Your task to perform on an android device: open app "Adobe Acrobat Reader: Edit PDF" Image 0: 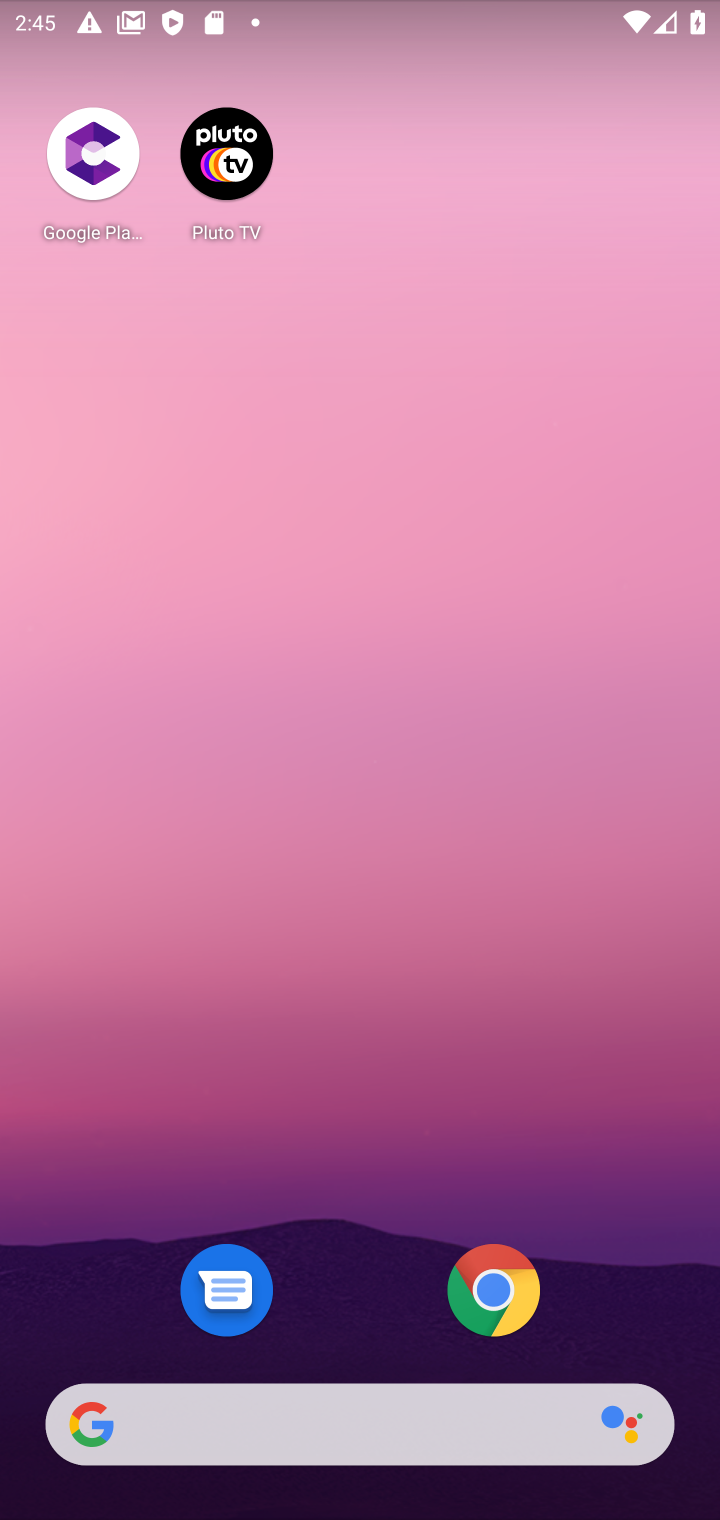
Step 0: click (492, 766)
Your task to perform on an android device: open app "Adobe Acrobat Reader: Edit PDF" Image 1: 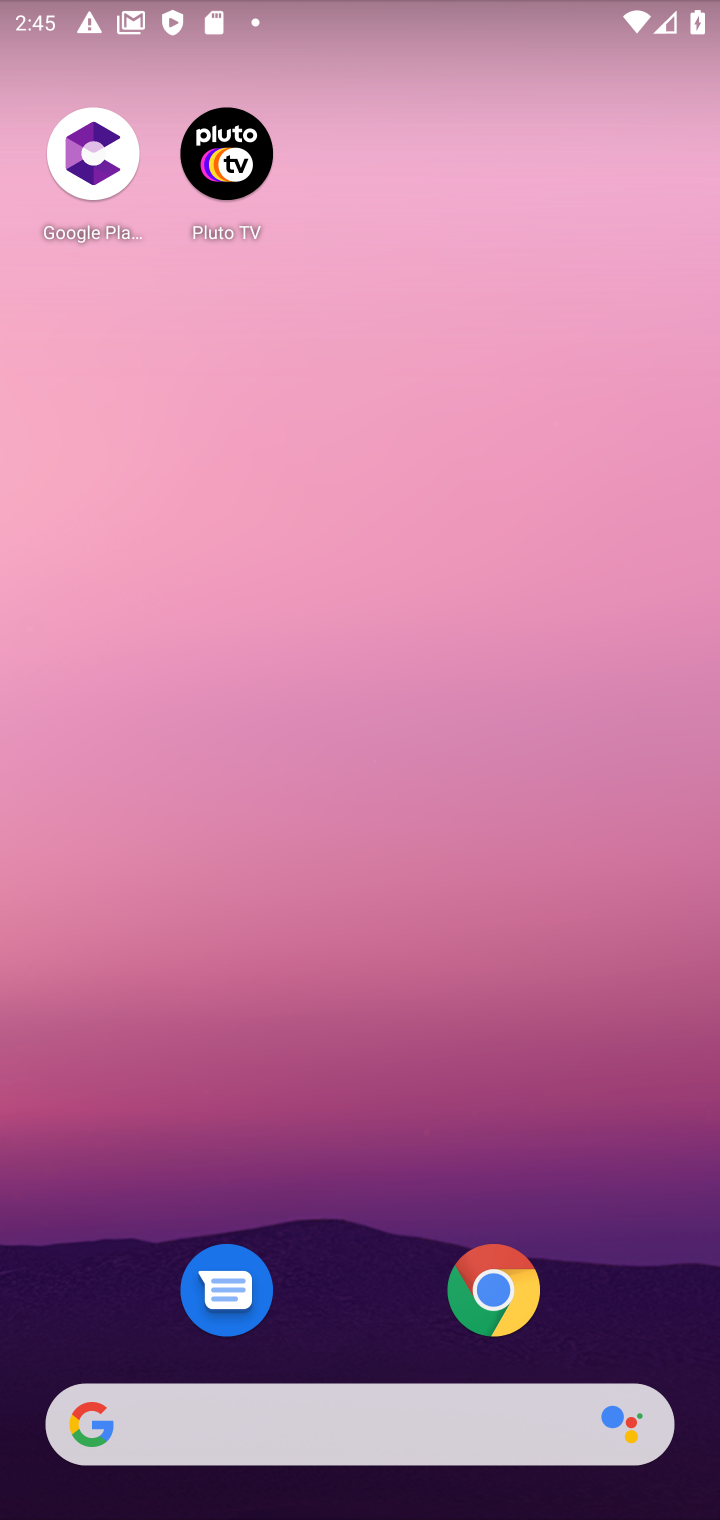
Step 1: drag from (494, 1358) to (443, 699)
Your task to perform on an android device: open app "Adobe Acrobat Reader: Edit PDF" Image 2: 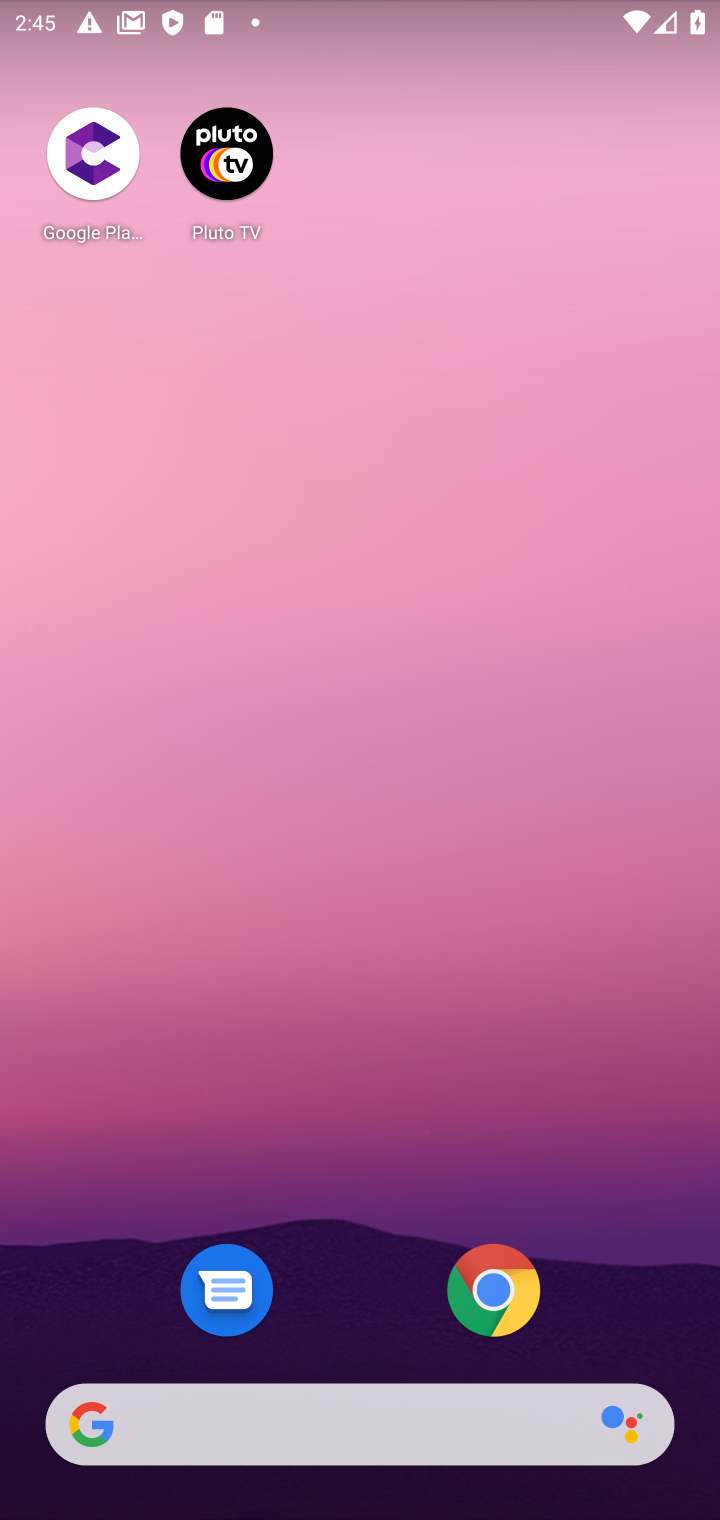
Step 2: drag from (419, 739) to (419, 658)
Your task to perform on an android device: open app "Adobe Acrobat Reader: Edit PDF" Image 3: 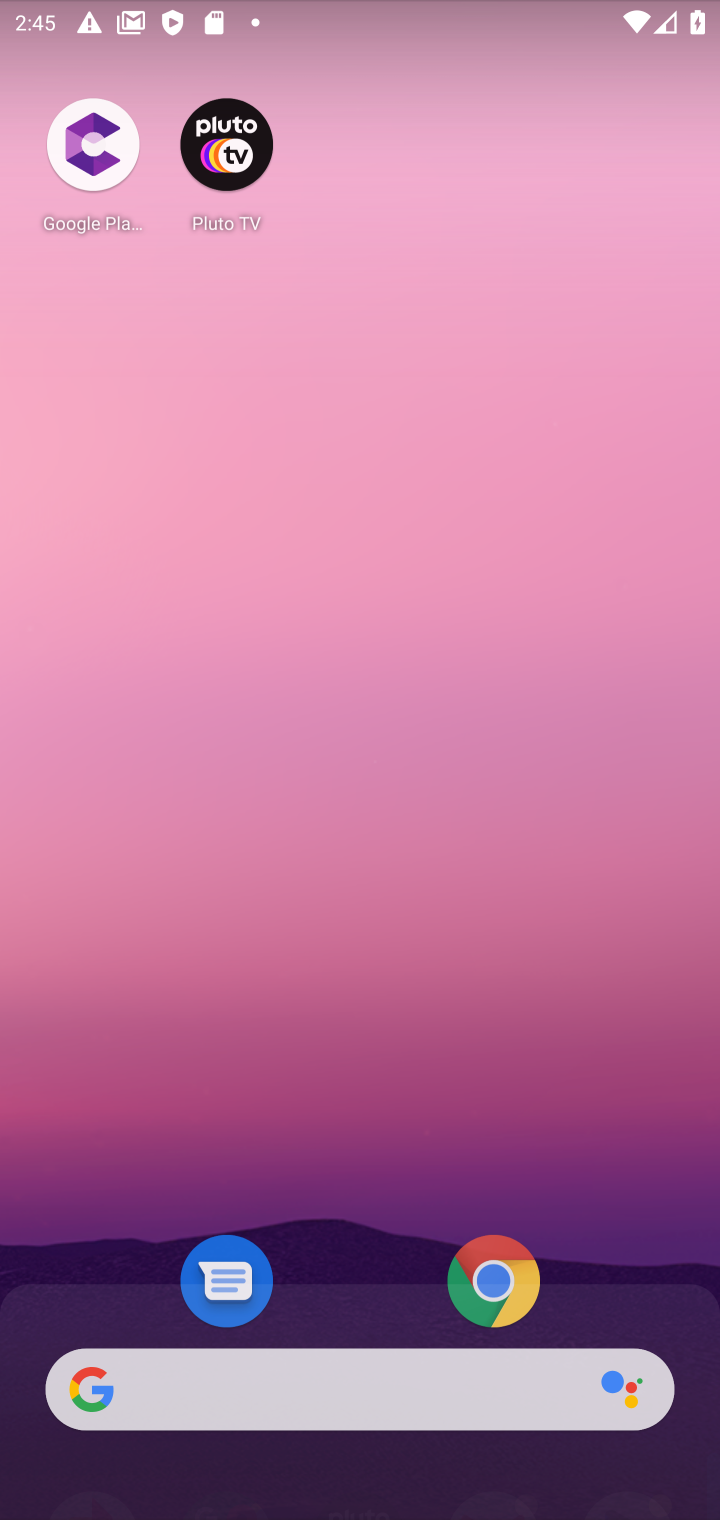
Step 3: drag from (344, 729) to (344, 645)
Your task to perform on an android device: open app "Adobe Acrobat Reader: Edit PDF" Image 4: 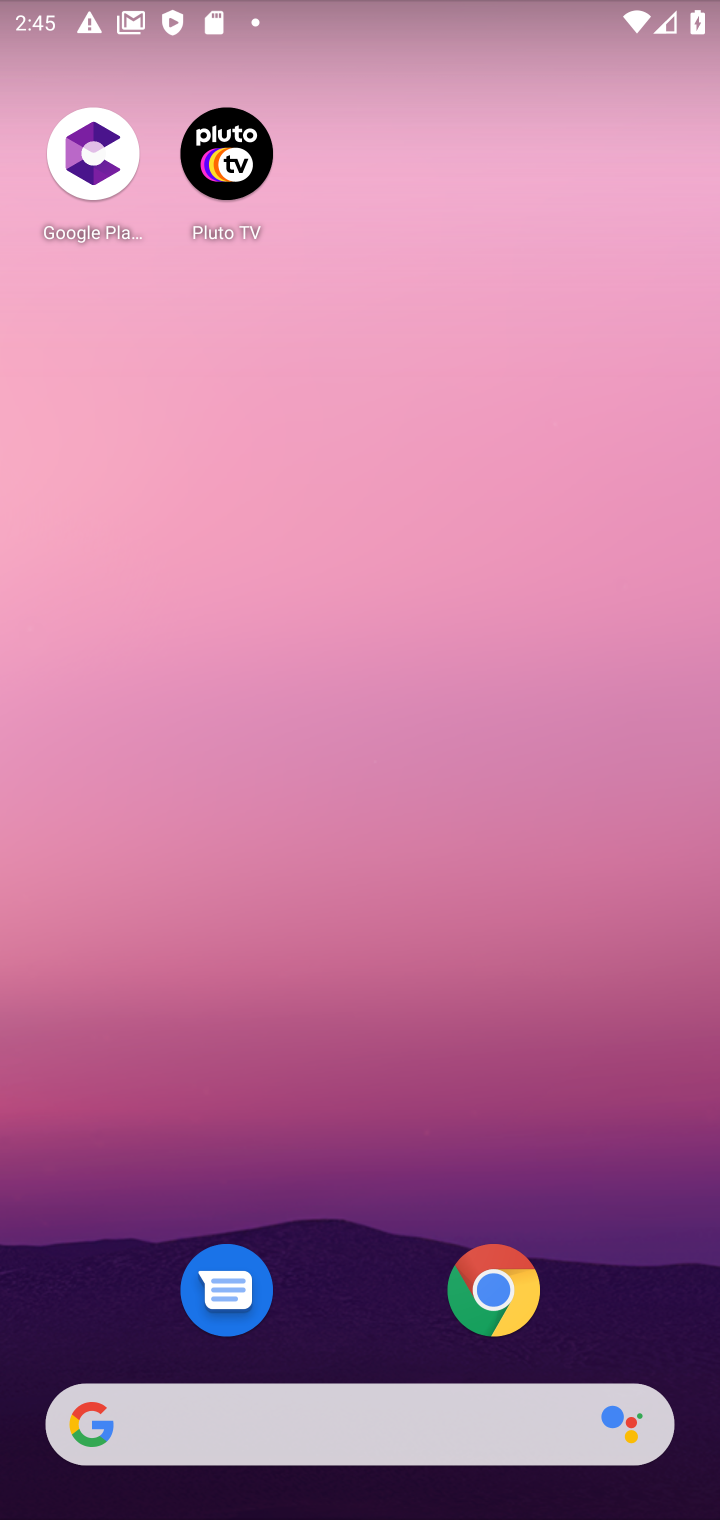
Step 4: drag from (596, 1111) to (541, 376)
Your task to perform on an android device: open app "Adobe Acrobat Reader: Edit PDF" Image 5: 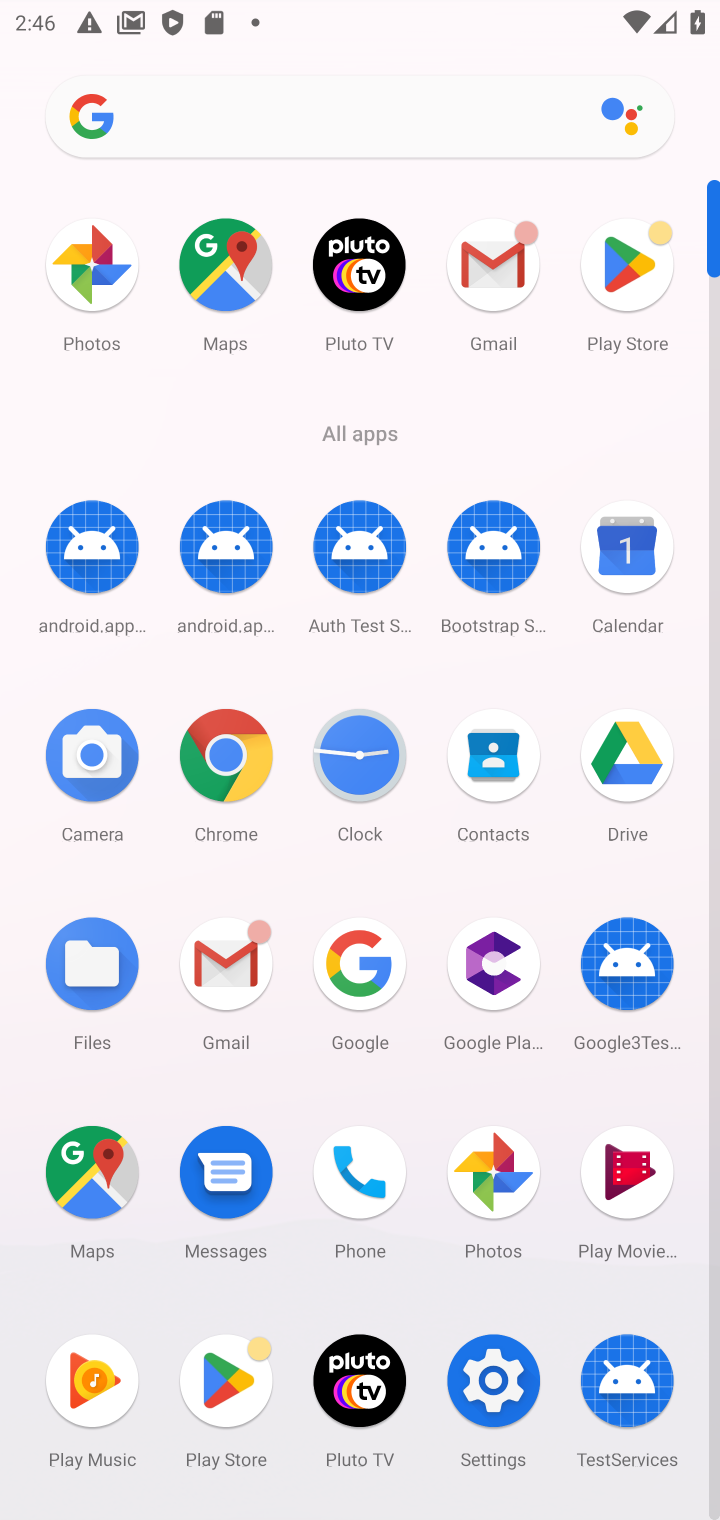
Step 5: click (248, 1398)
Your task to perform on an android device: open app "Adobe Acrobat Reader: Edit PDF" Image 6: 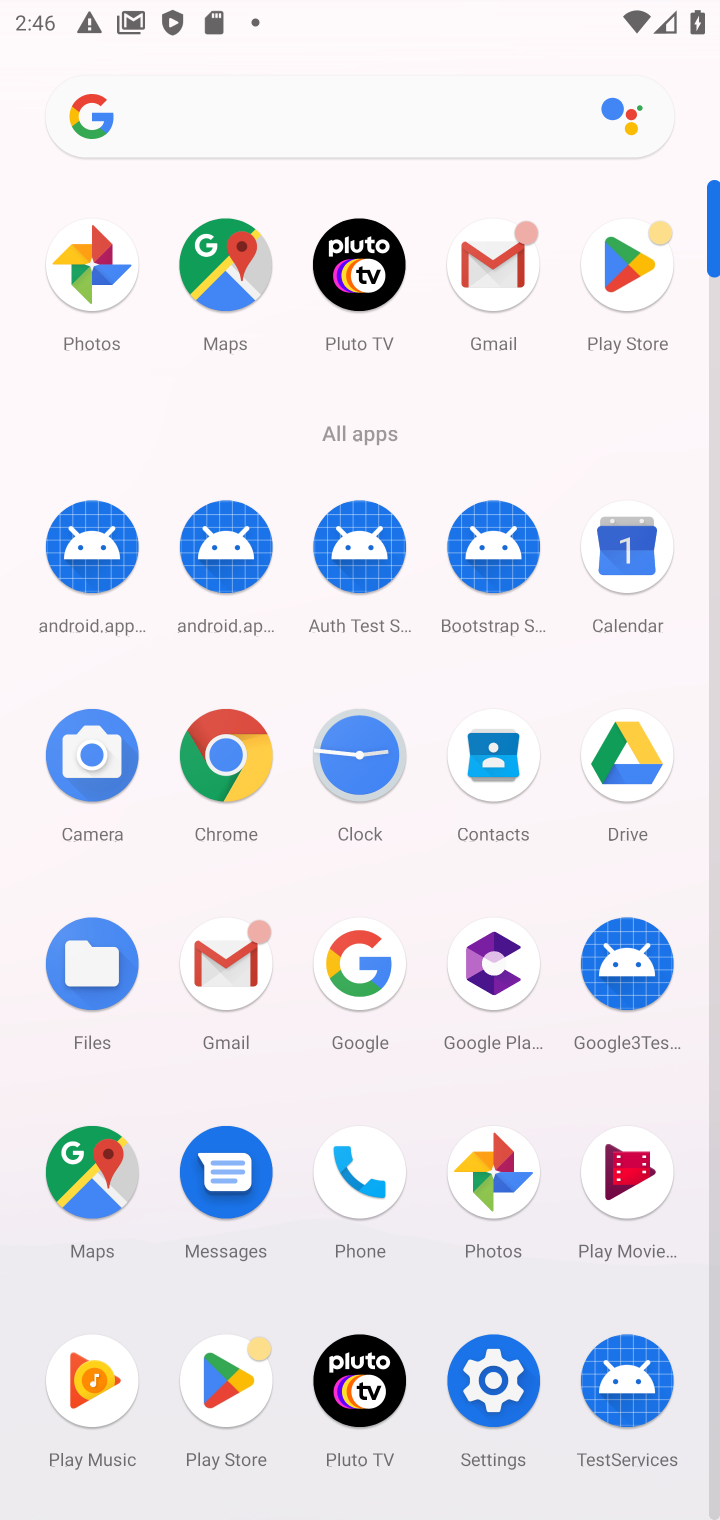
Step 6: click (244, 1396)
Your task to perform on an android device: open app "Adobe Acrobat Reader: Edit PDF" Image 7: 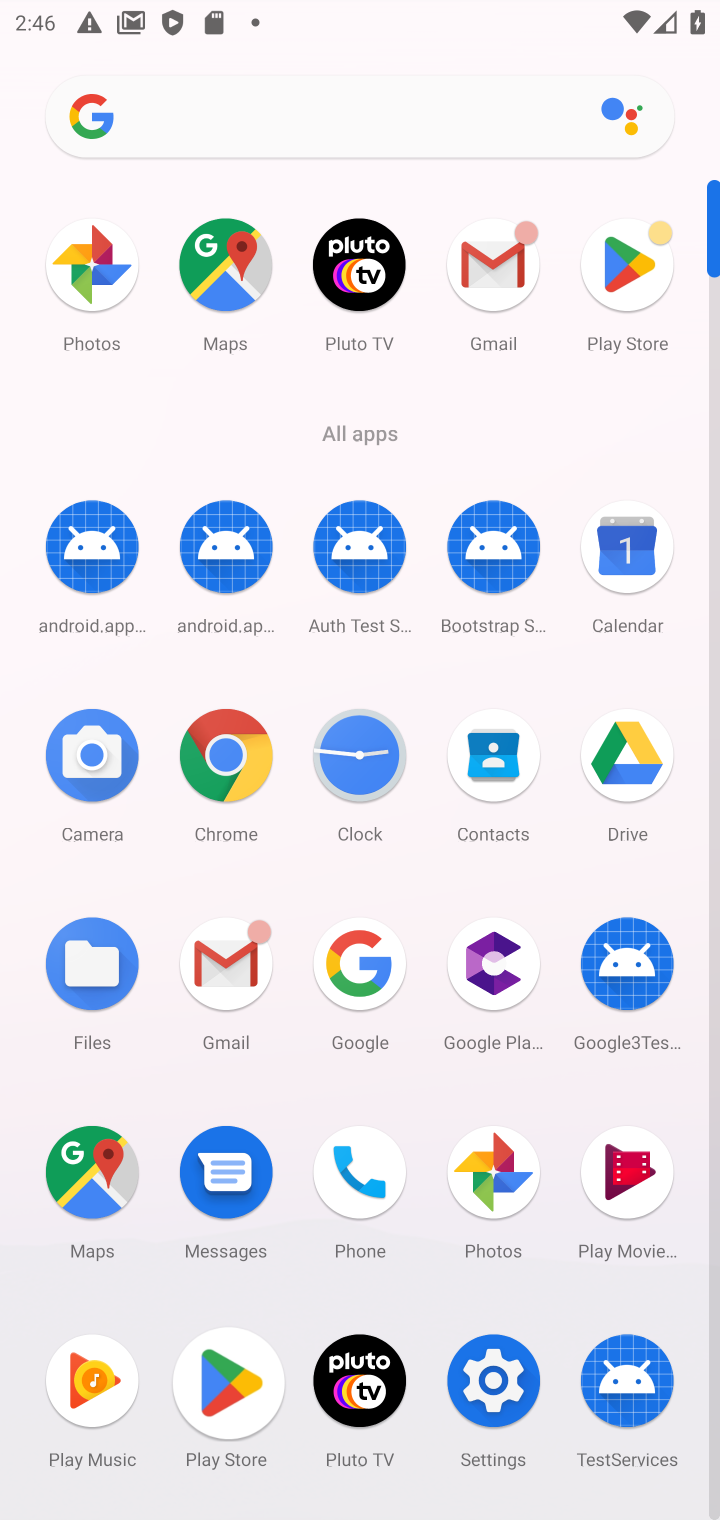
Step 7: click (250, 1398)
Your task to perform on an android device: open app "Adobe Acrobat Reader: Edit PDF" Image 8: 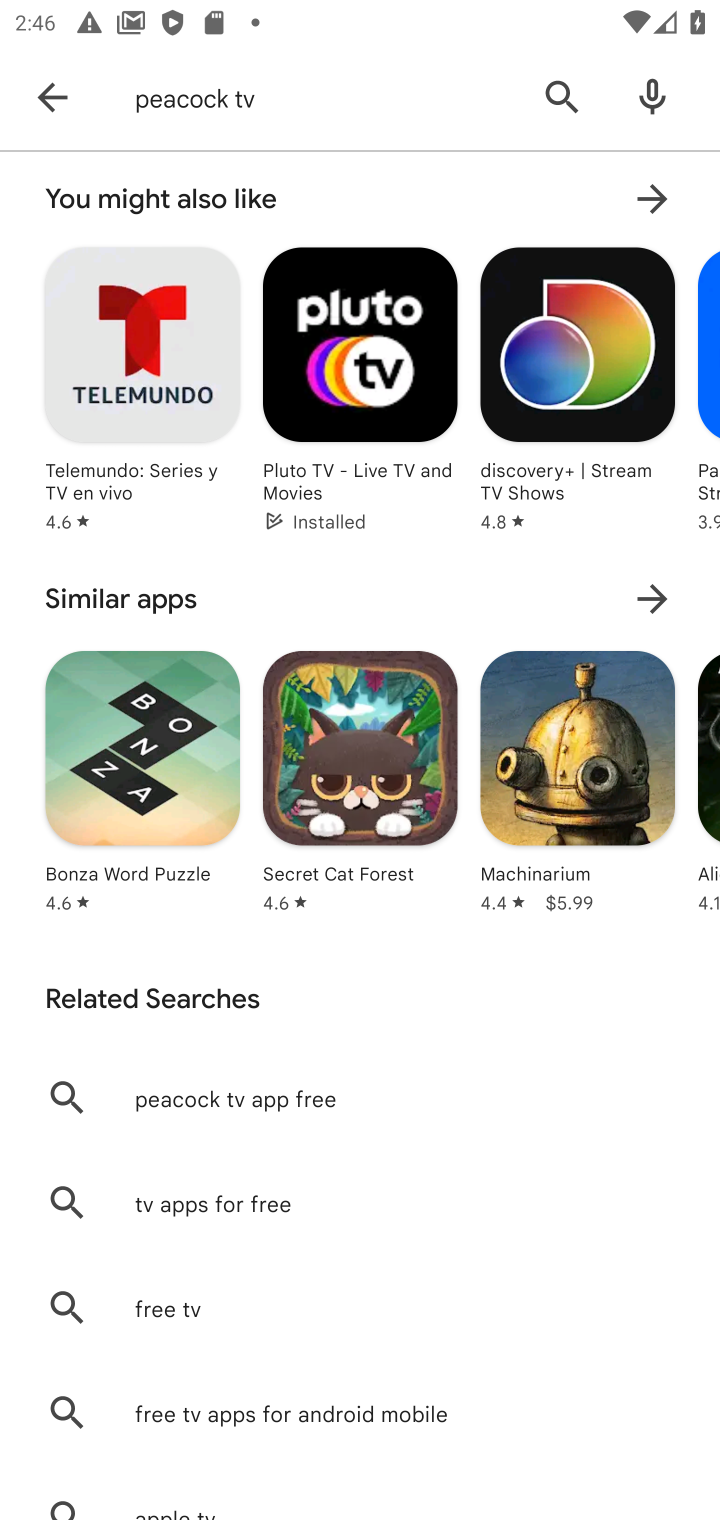
Step 8: click (266, 1409)
Your task to perform on an android device: open app "Adobe Acrobat Reader: Edit PDF" Image 9: 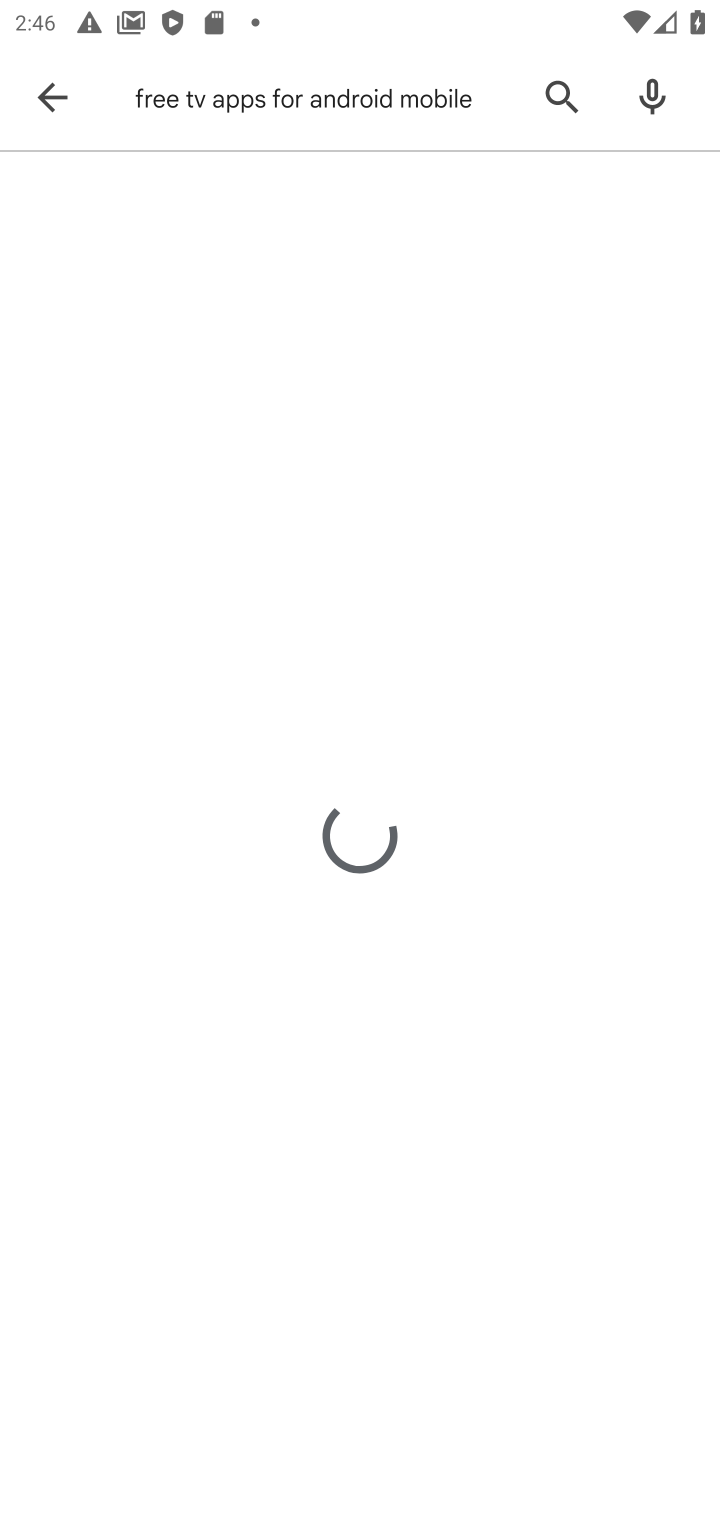
Step 9: click (280, 1401)
Your task to perform on an android device: open app "Adobe Acrobat Reader: Edit PDF" Image 10: 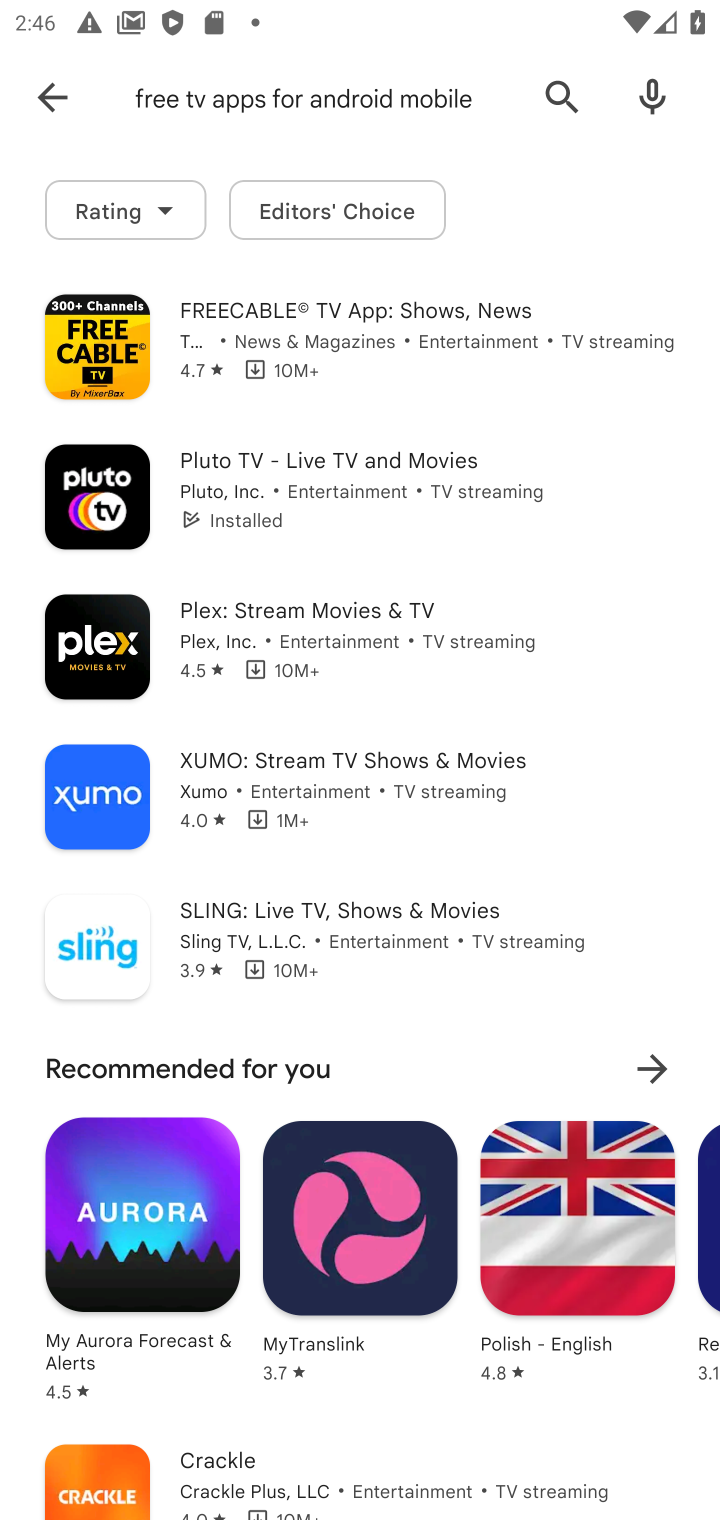
Step 10: click (177, 108)
Your task to perform on an android device: open app "Adobe Acrobat Reader: Edit PDF" Image 11: 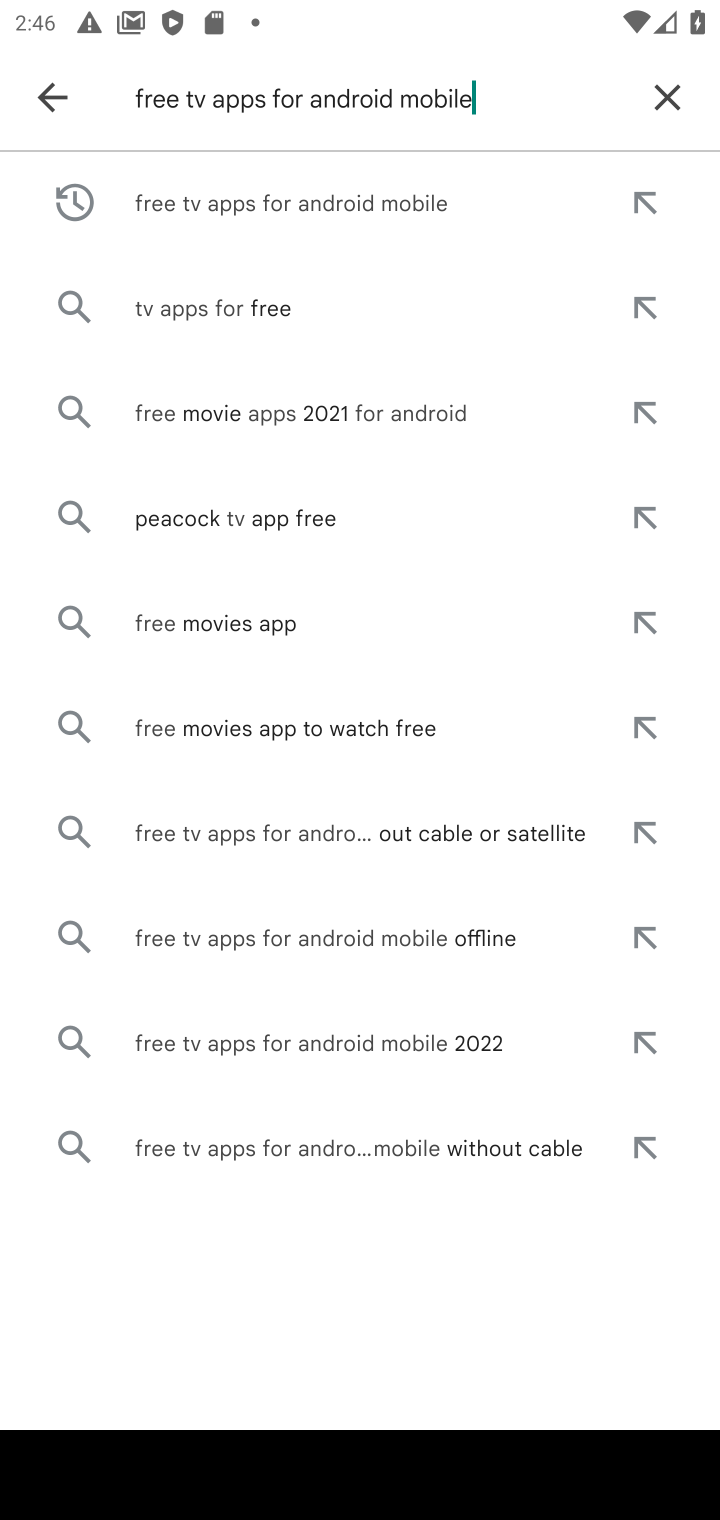
Step 11: type "adobe "
Your task to perform on an android device: open app "Adobe Acrobat Reader: Edit PDF" Image 12: 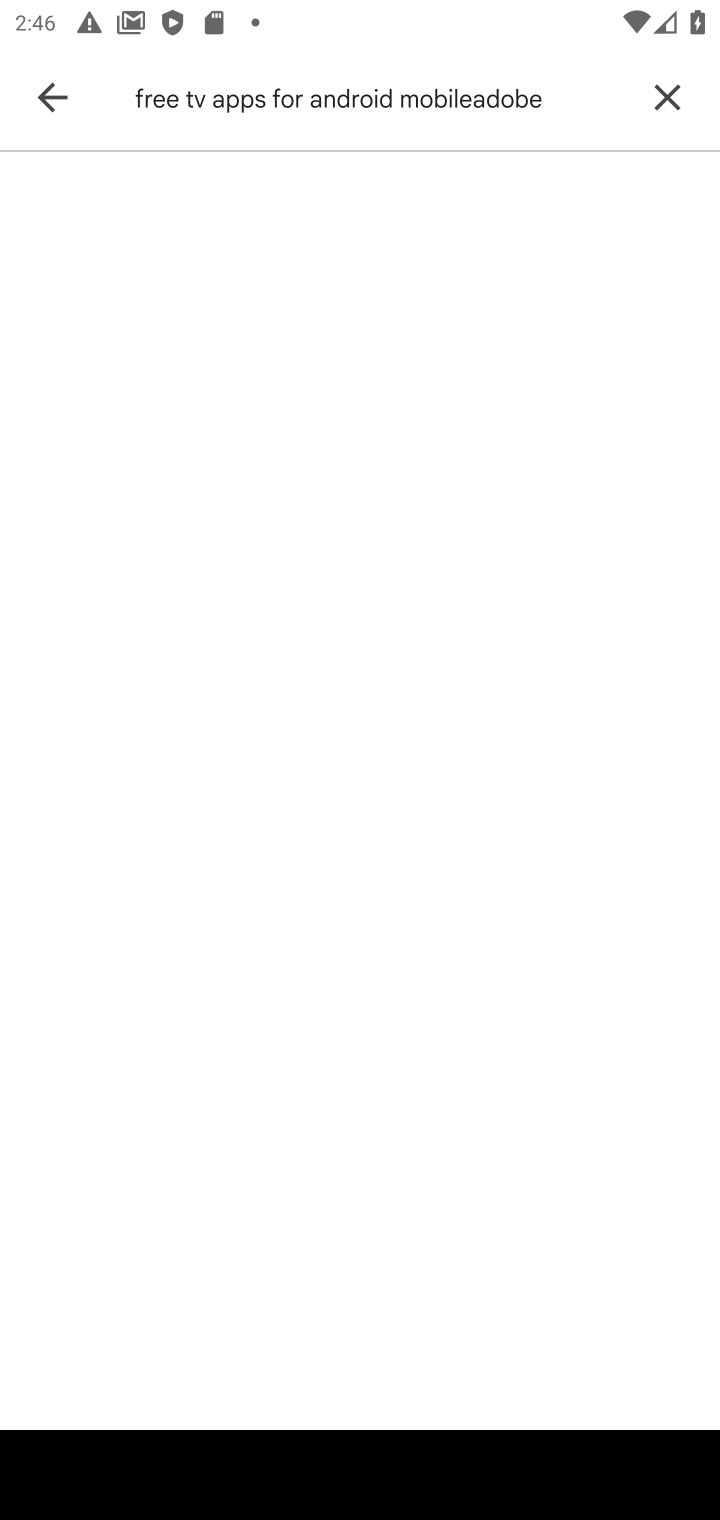
Step 12: click (666, 113)
Your task to perform on an android device: open app "Adobe Acrobat Reader: Edit PDF" Image 13: 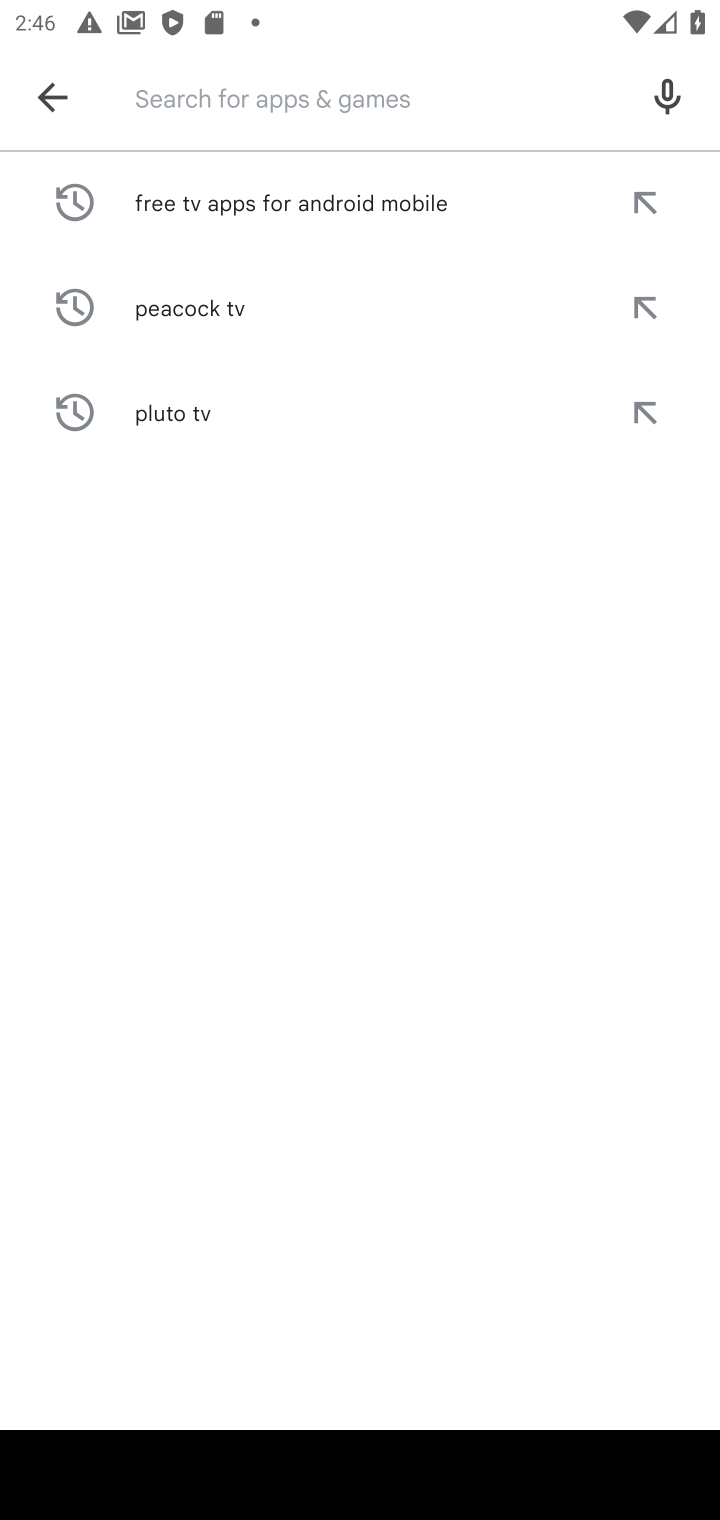
Step 13: type "adobe"
Your task to perform on an android device: open app "Adobe Acrobat Reader: Edit PDF" Image 14: 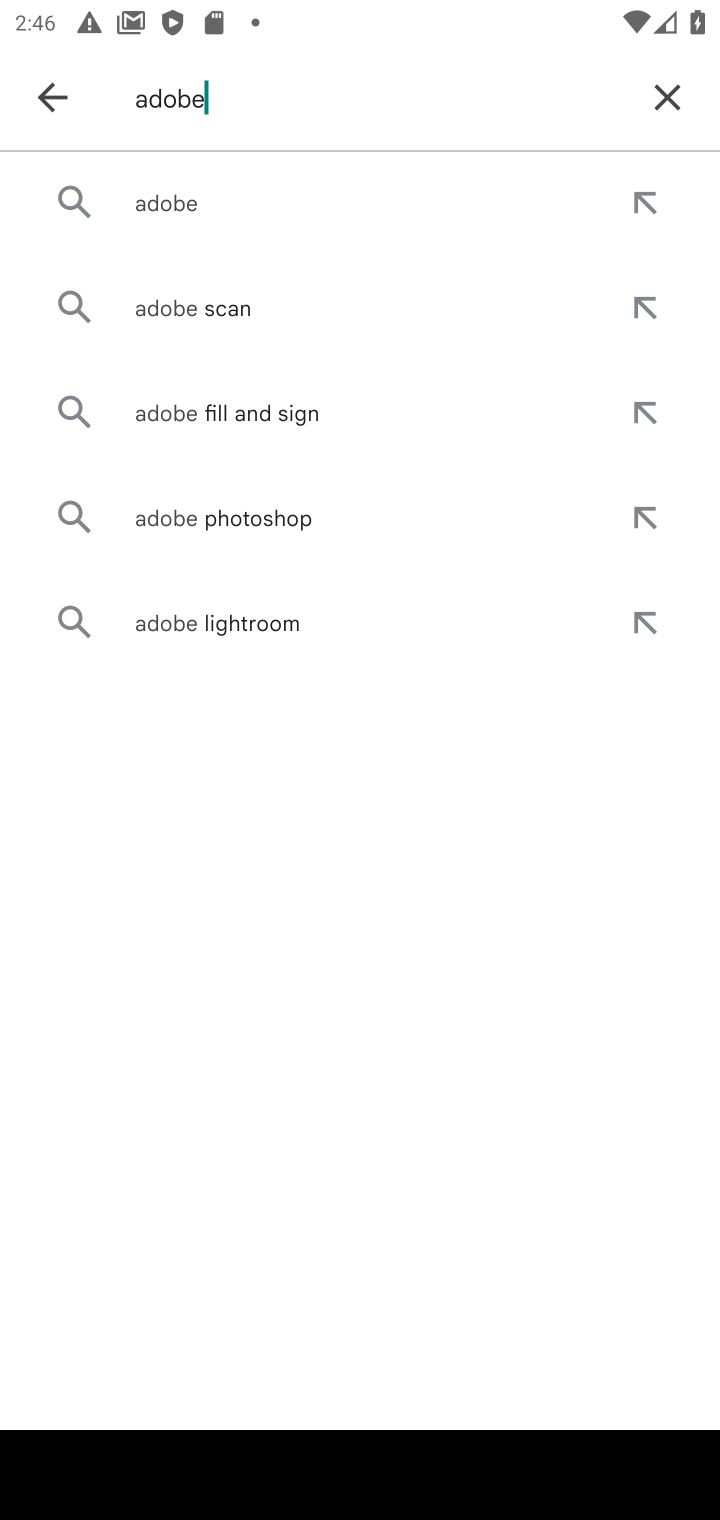
Step 14: click (189, 210)
Your task to perform on an android device: open app "Adobe Acrobat Reader: Edit PDF" Image 15: 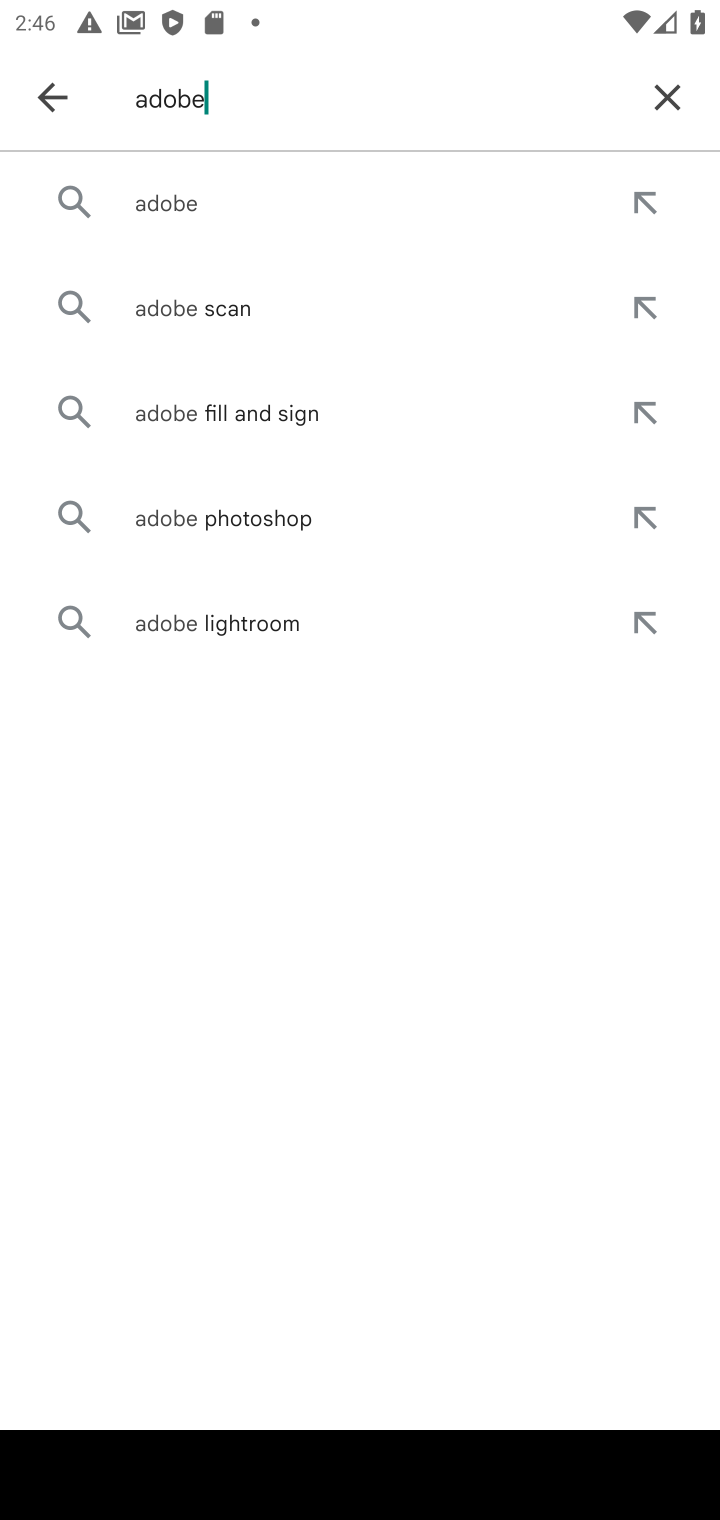
Step 15: click (189, 208)
Your task to perform on an android device: open app "Adobe Acrobat Reader: Edit PDF" Image 16: 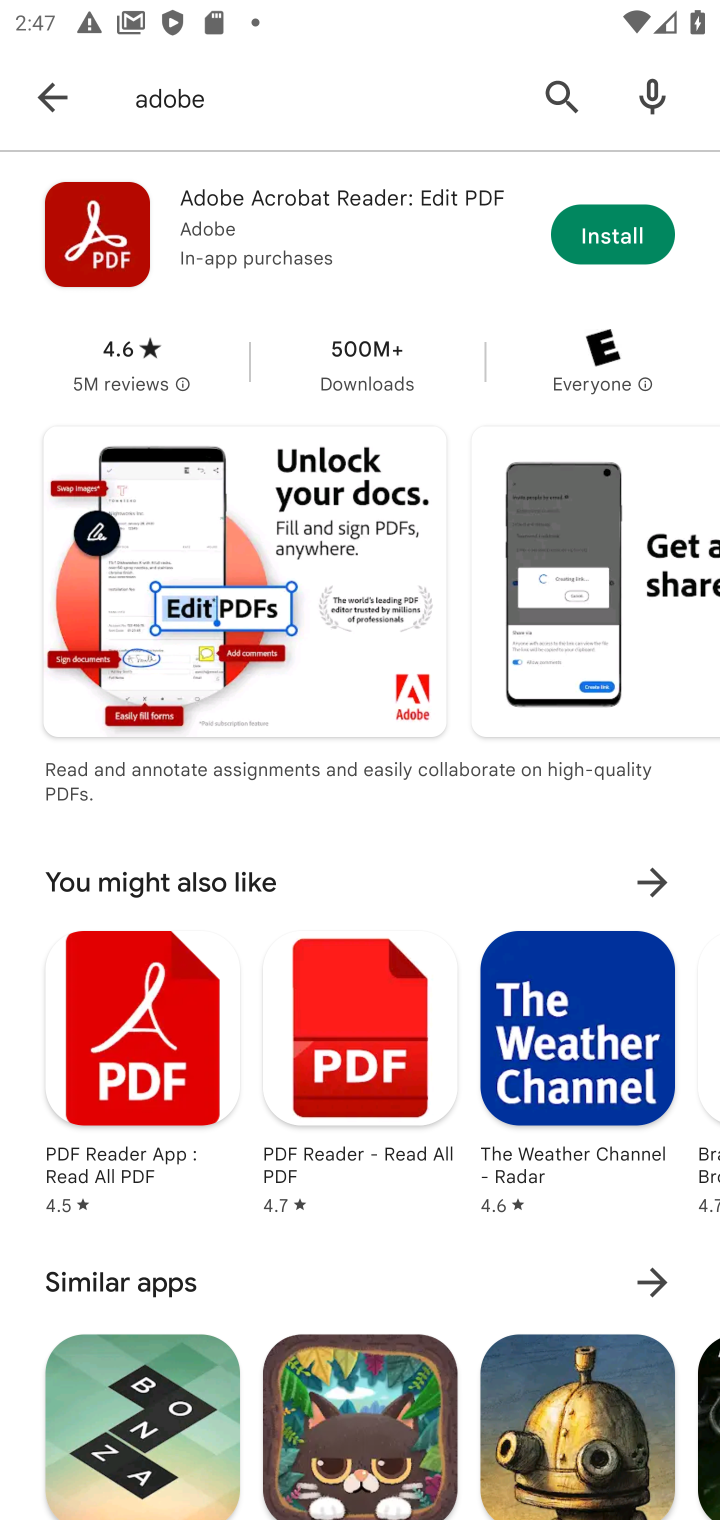
Step 16: click (598, 243)
Your task to perform on an android device: open app "Adobe Acrobat Reader: Edit PDF" Image 17: 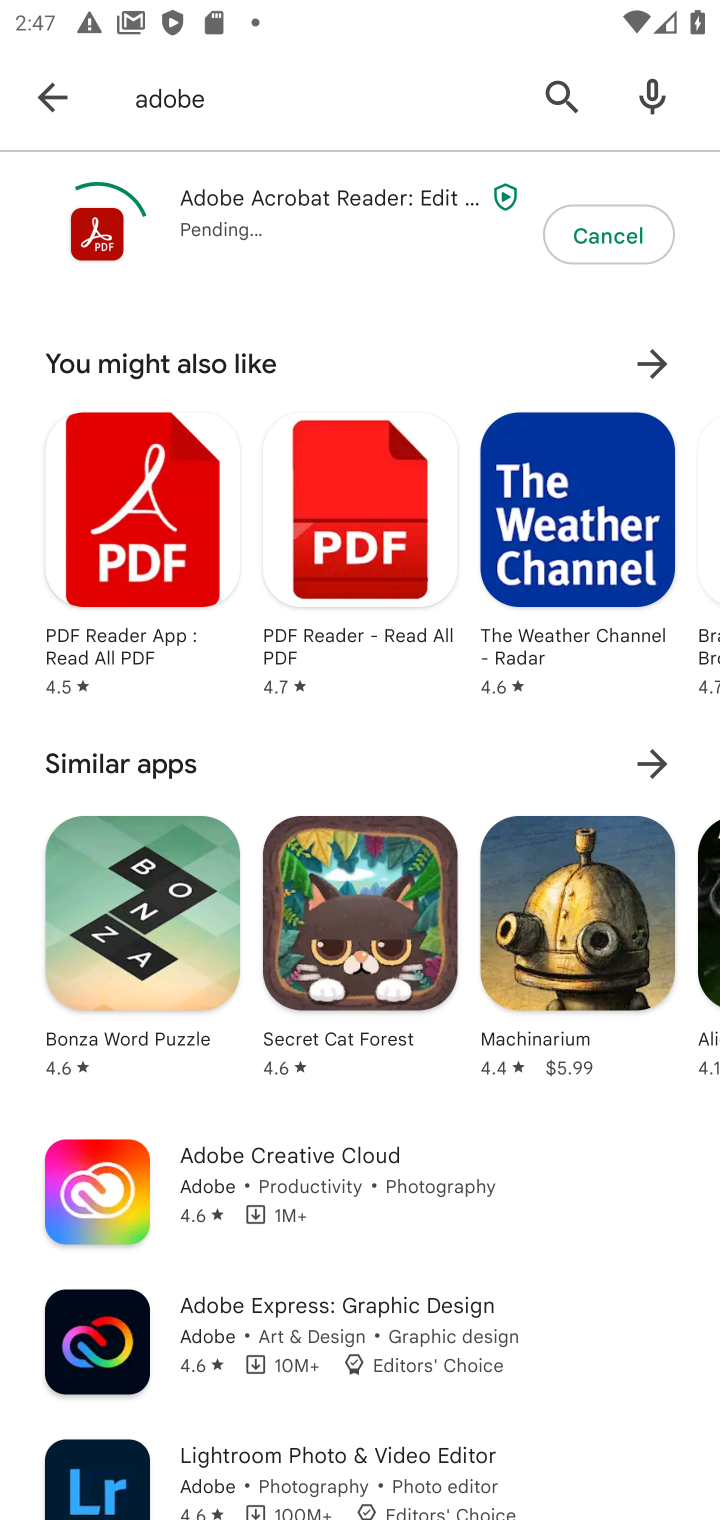
Step 17: task complete